Your task to perform on an android device: View the shopping cart on newegg.com. Add "razer naga" to the cart on newegg.com Image 0: 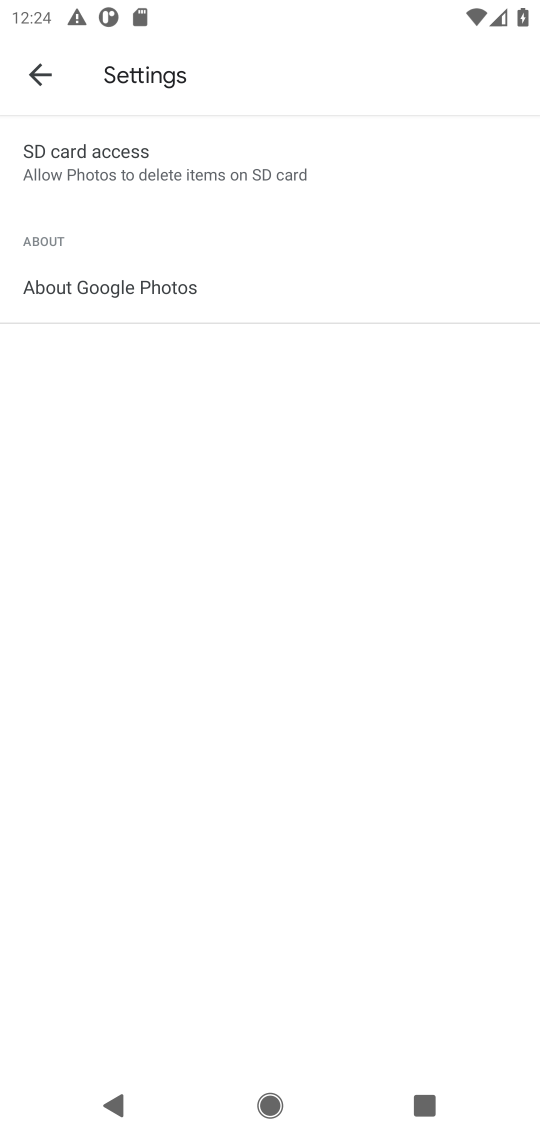
Step 0: press home button
Your task to perform on an android device: View the shopping cart on newegg.com. Add "razer naga" to the cart on newegg.com Image 1: 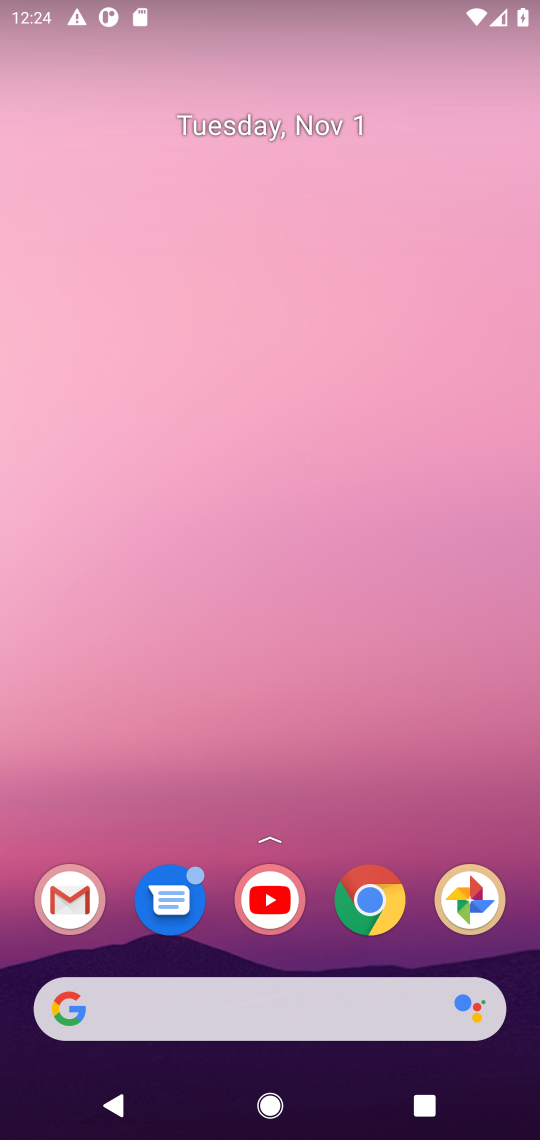
Step 1: click (371, 913)
Your task to perform on an android device: View the shopping cart on newegg.com. Add "razer naga" to the cart on newegg.com Image 2: 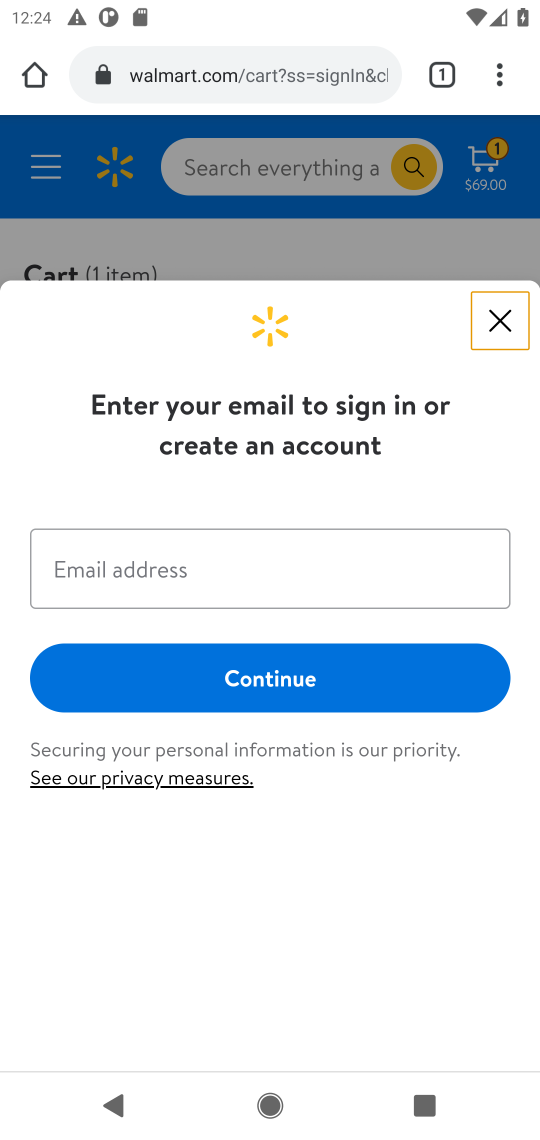
Step 2: click (314, 67)
Your task to perform on an android device: View the shopping cart on newegg.com. Add "razer naga" to the cart on newegg.com Image 3: 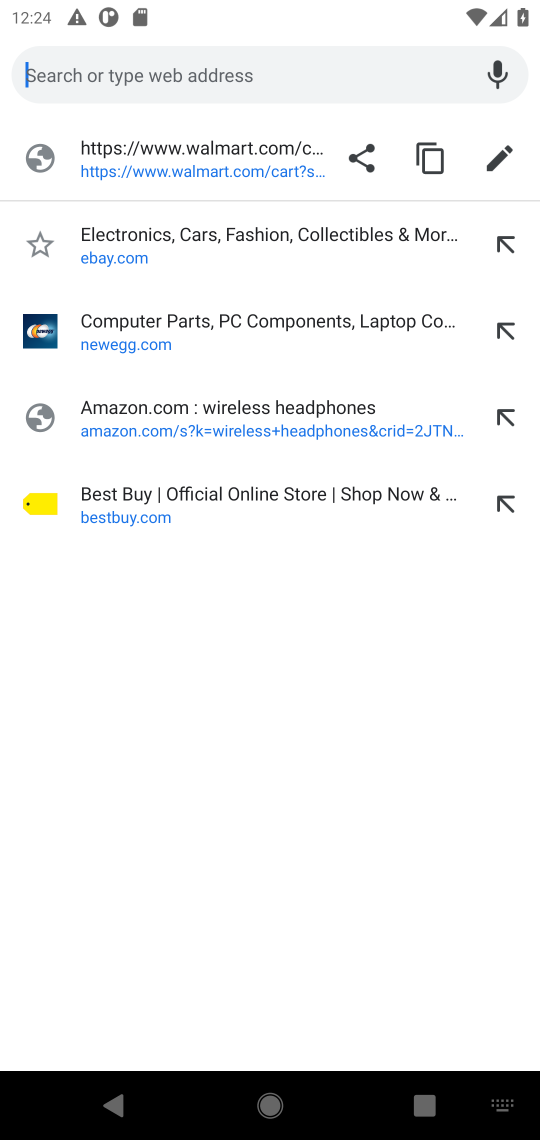
Step 3: type "newegg"
Your task to perform on an android device: View the shopping cart on newegg.com. Add "razer naga" to the cart on newegg.com Image 4: 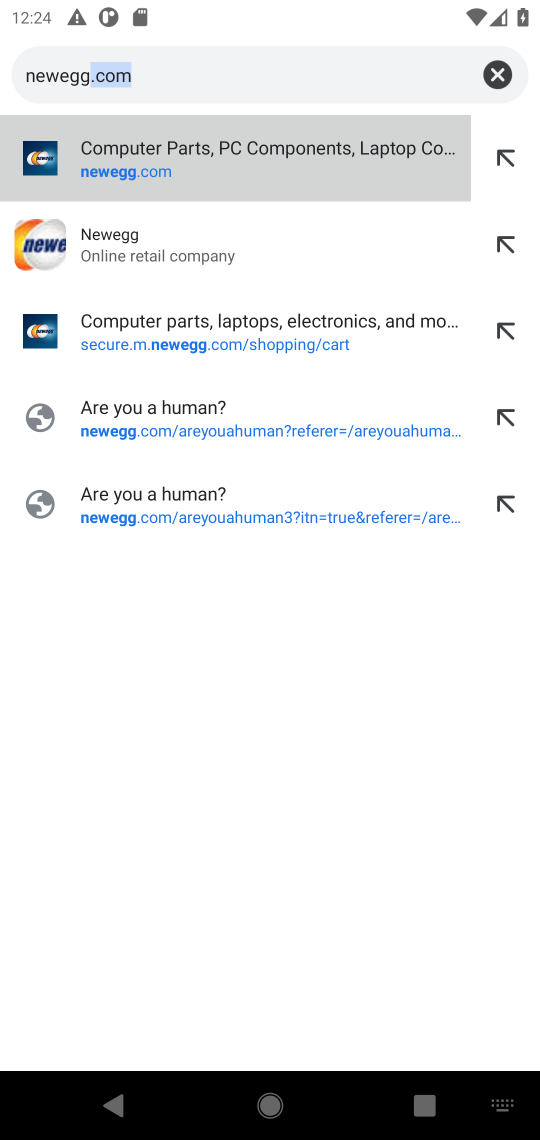
Step 4: press enter
Your task to perform on an android device: View the shopping cart on newegg.com. Add "razer naga" to the cart on newegg.com Image 5: 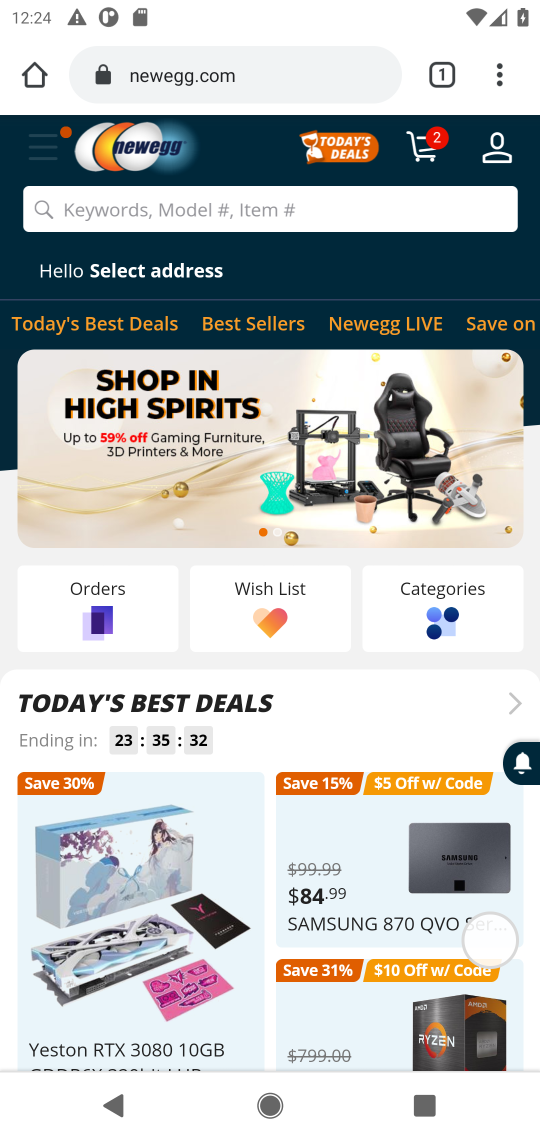
Step 5: click (315, 204)
Your task to perform on an android device: View the shopping cart on newegg.com. Add "razer naga" to the cart on newegg.com Image 6: 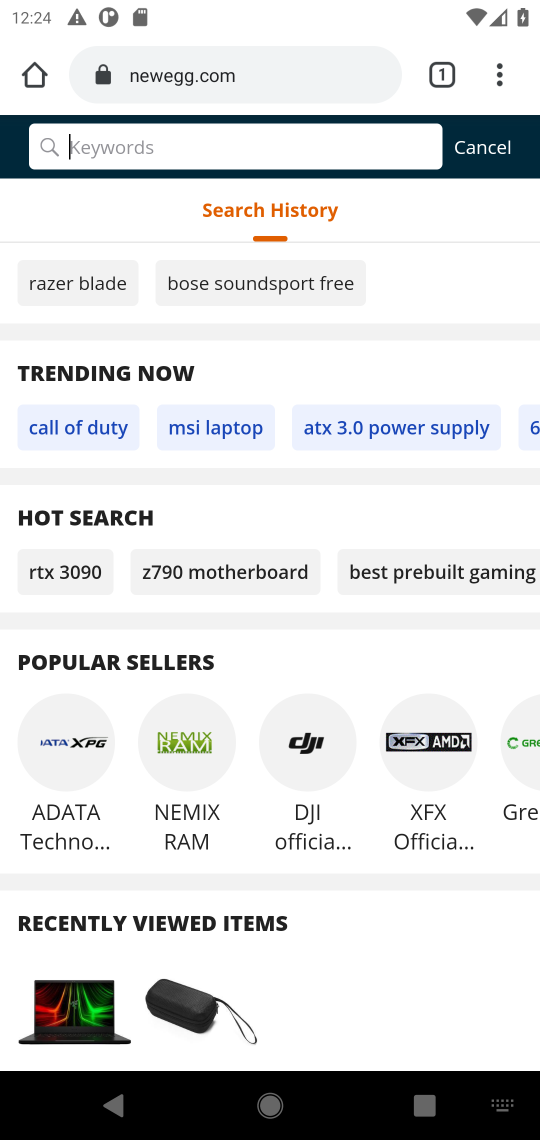
Step 6: click (475, 147)
Your task to perform on an android device: View the shopping cart on newegg.com. Add "razer naga" to the cart on newegg.com Image 7: 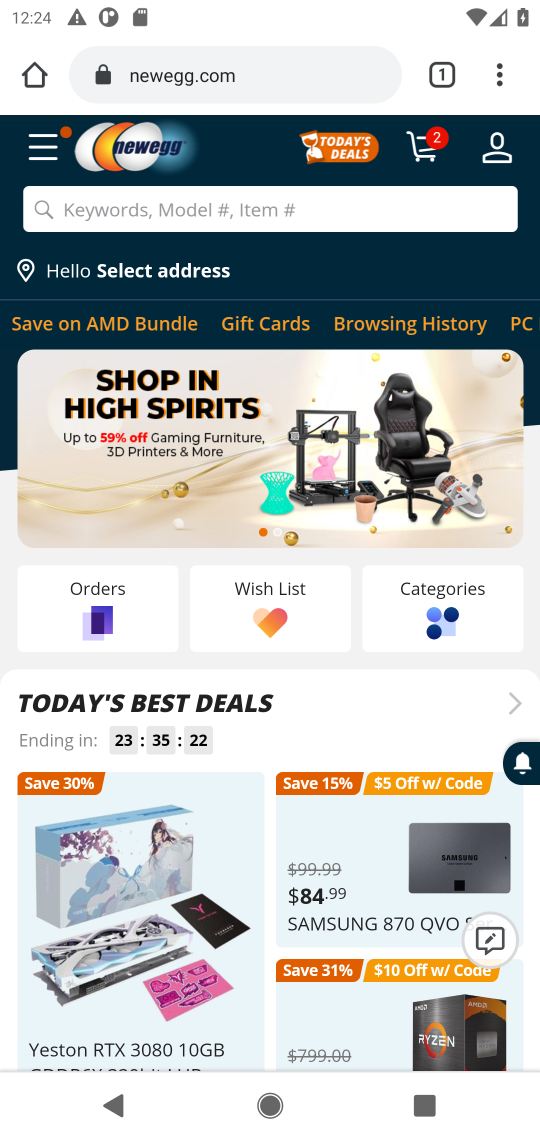
Step 7: click (419, 151)
Your task to perform on an android device: View the shopping cart on newegg.com. Add "razer naga" to the cart on newegg.com Image 8: 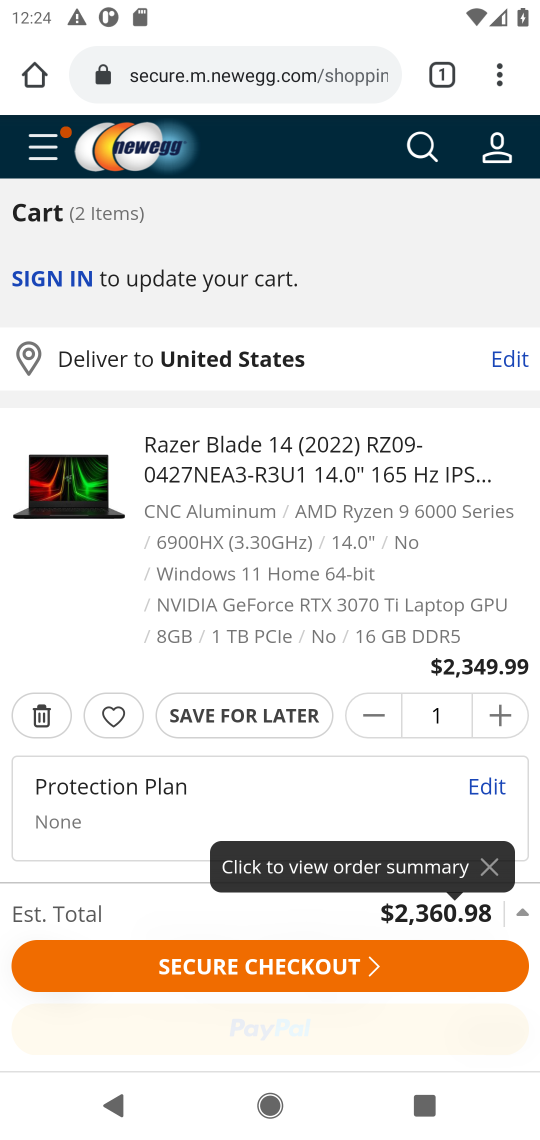
Step 8: click (377, 719)
Your task to perform on an android device: View the shopping cart on newegg.com. Add "razer naga" to the cart on newegg.com Image 9: 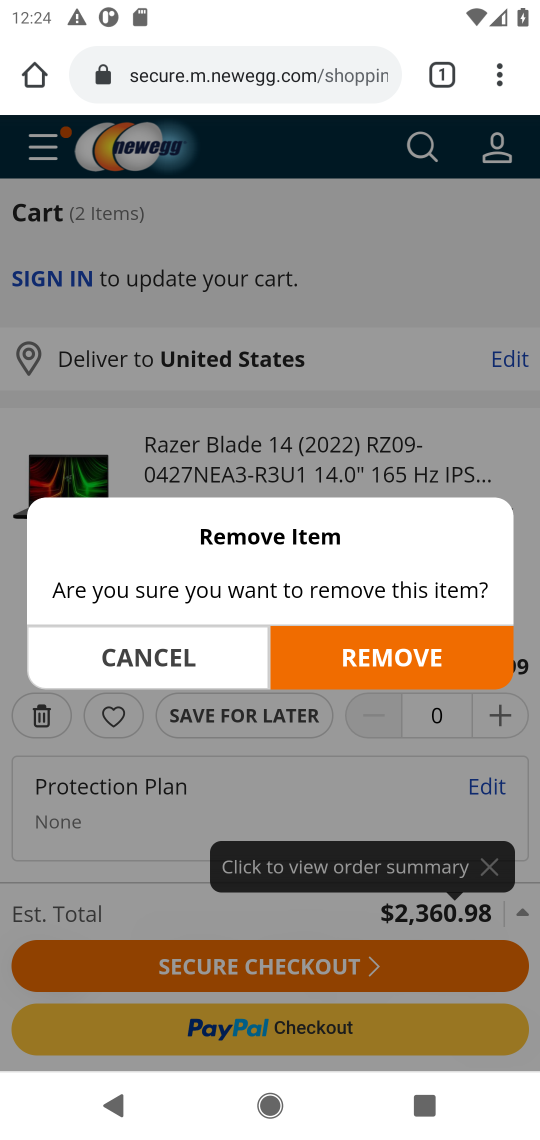
Step 9: click (364, 654)
Your task to perform on an android device: View the shopping cart on newegg.com. Add "razer naga" to the cart on newegg.com Image 10: 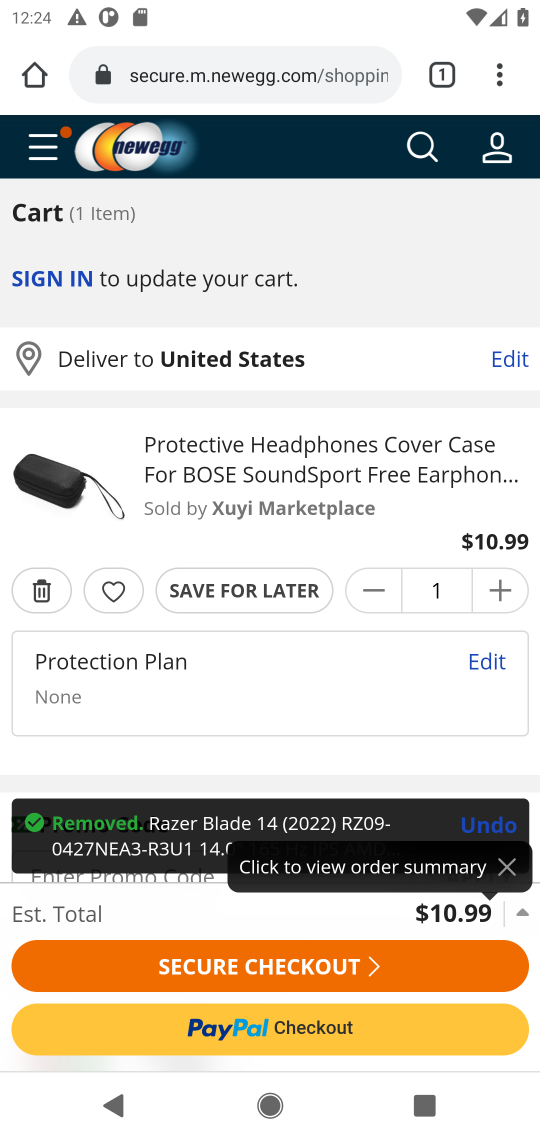
Step 10: click (37, 594)
Your task to perform on an android device: View the shopping cart on newegg.com. Add "razer naga" to the cart on newegg.com Image 11: 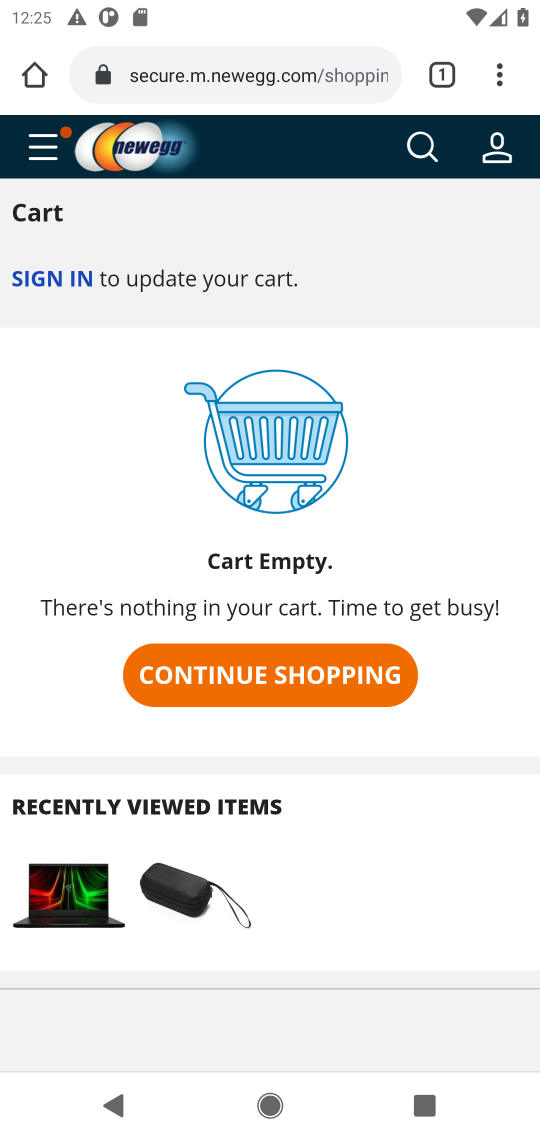
Step 11: click (410, 146)
Your task to perform on an android device: View the shopping cart on newegg.com. Add "razer naga" to the cart on newegg.com Image 12: 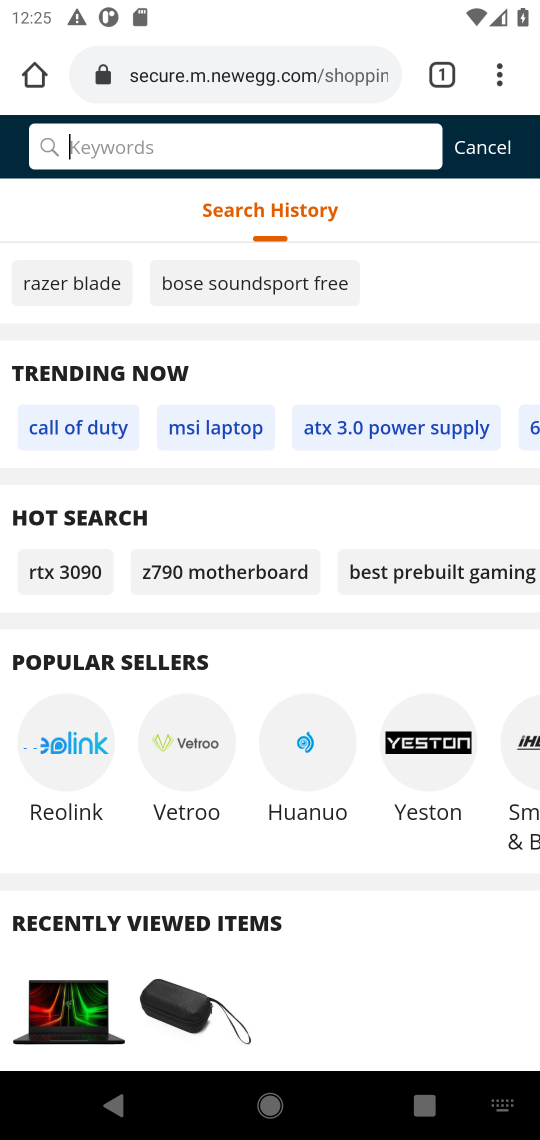
Step 12: type "razer naga"
Your task to perform on an android device: View the shopping cart on newegg.com. Add "razer naga" to the cart on newegg.com Image 13: 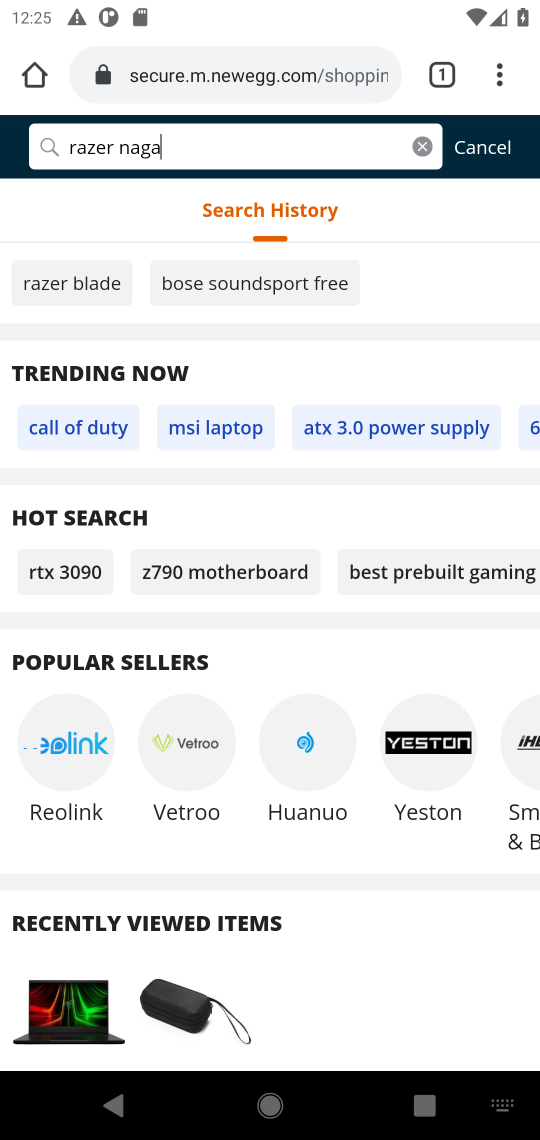
Step 13: press enter
Your task to perform on an android device: View the shopping cart on newegg.com. Add "razer naga" to the cart on newegg.com Image 14: 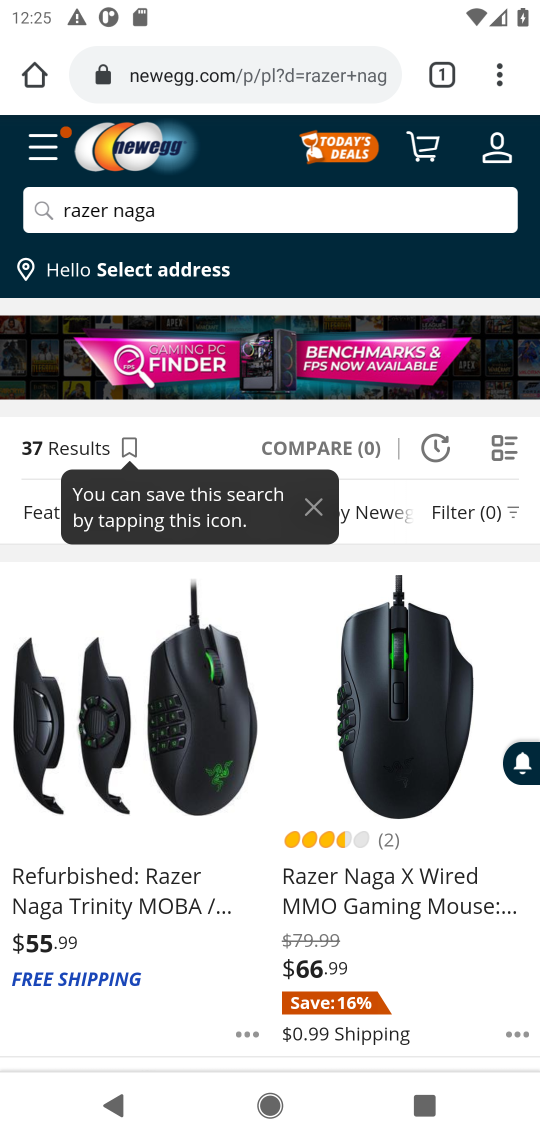
Step 14: click (175, 695)
Your task to perform on an android device: View the shopping cart on newegg.com. Add "razer naga" to the cart on newegg.com Image 15: 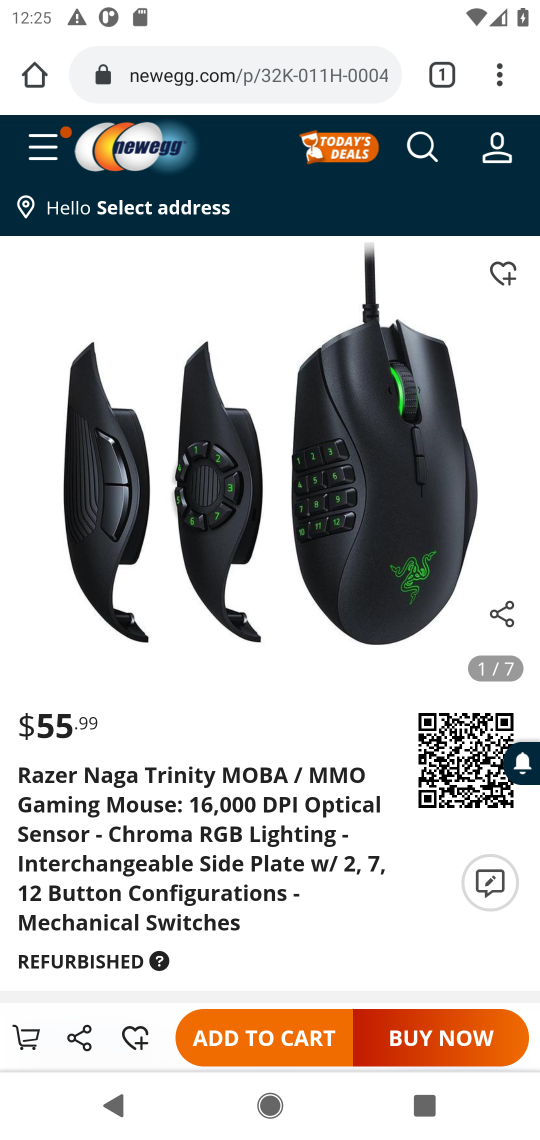
Step 15: click (221, 1035)
Your task to perform on an android device: View the shopping cart on newegg.com. Add "razer naga" to the cart on newegg.com Image 16: 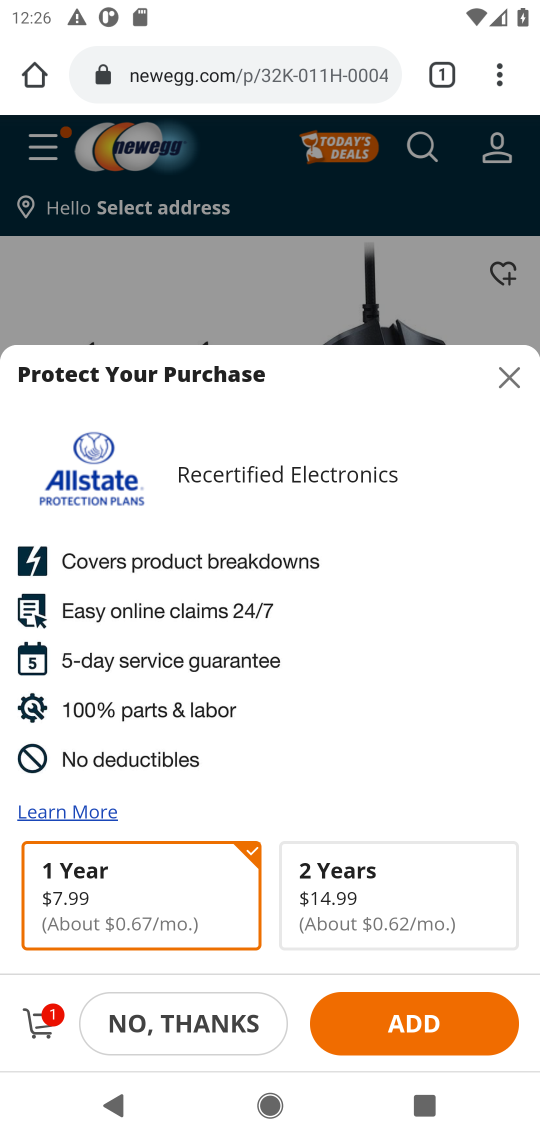
Step 16: click (513, 378)
Your task to perform on an android device: View the shopping cart on newegg.com. Add "razer naga" to the cart on newegg.com Image 17: 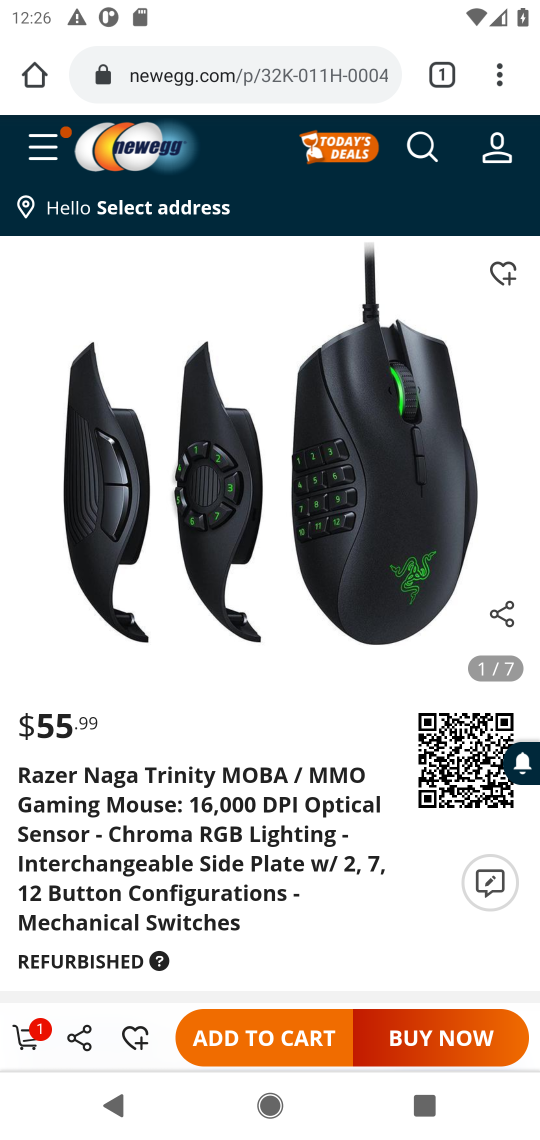
Step 17: task complete